Your task to perform on an android device: move an email to a new category in the gmail app Image 0: 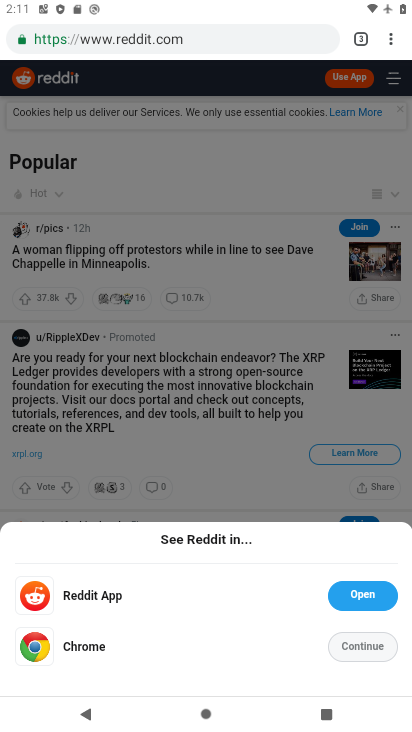
Step 0: press home button
Your task to perform on an android device: move an email to a new category in the gmail app Image 1: 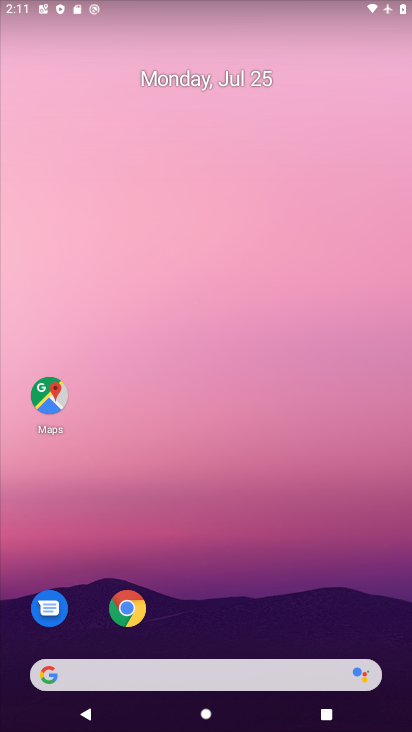
Step 1: drag from (251, 605) to (299, 36)
Your task to perform on an android device: move an email to a new category in the gmail app Image 2: 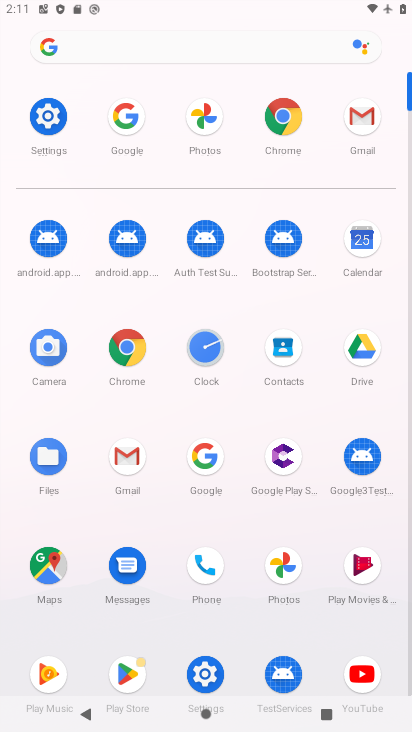
Step 2: click (125, 462)
Your task to perform on an android device: move an email to a new category in the gmail app Image 3: 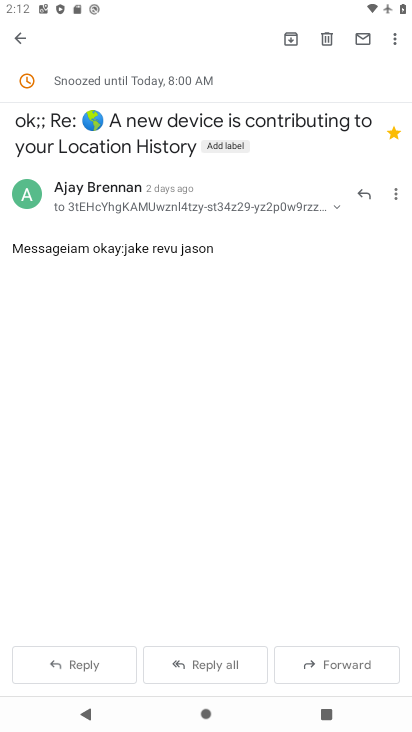
Step 3: click (17, 39)
Your task to perform on an android device: move an email to a new category in the gmail app Image 4: 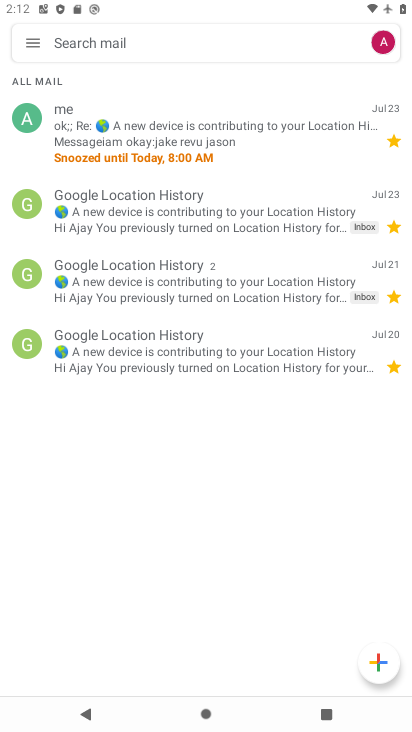
Step 4: click (126, 137)
Your task to perform on an android device: move an email to a new category in the gmail app Image 5: 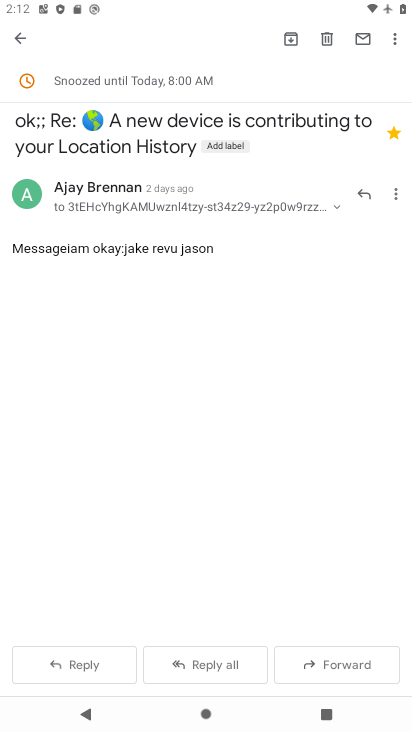
Step 5: click (396, 41)
Your task to perform on an android device: move an email to a new category in the gmail app Image 6: 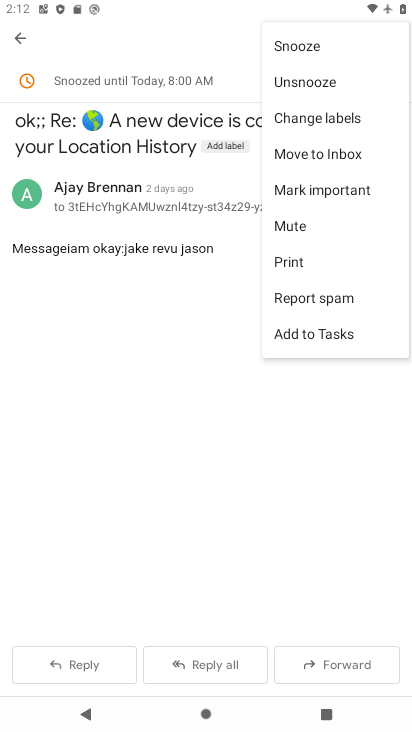
Step 6: click (326, 116)
Your task to perform on an android device: move an email to a new category in the gmail app Image 7: 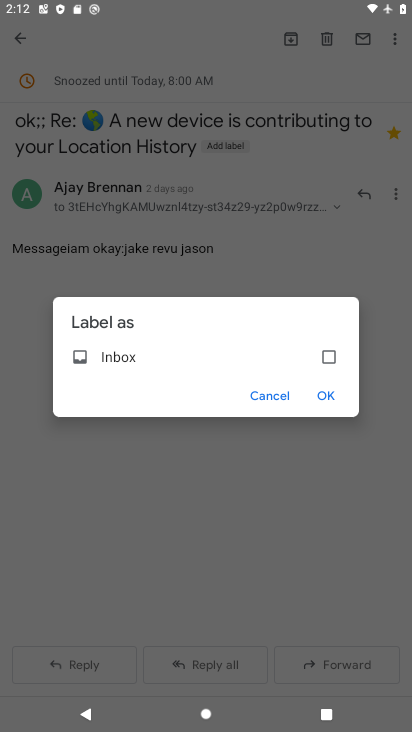
Step 7: click (328, 360)
Your task to perform on an android device: move an email to a new category in the gmail app Image 8: 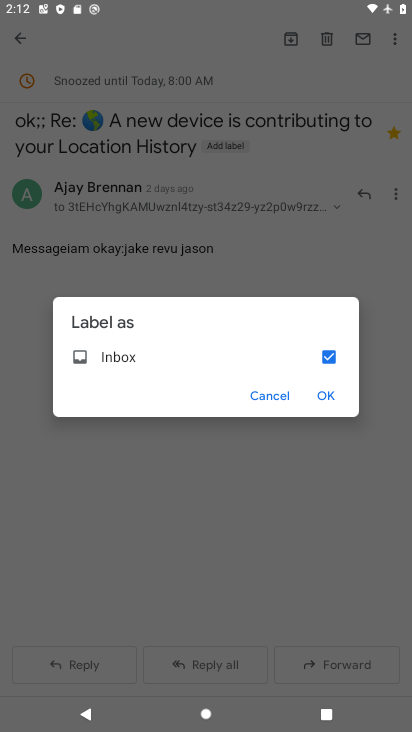
Step 8: click (327, 398)
Your task to perform on an android device: move an email to a new category in the gmail app Image 9: 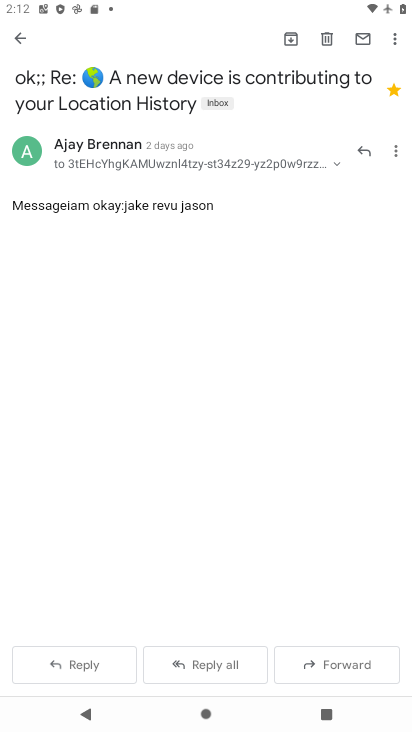
Step 9: click (390, 35)
Your task to perform on an android device: move an email to a new category in the gmail app Image 10: 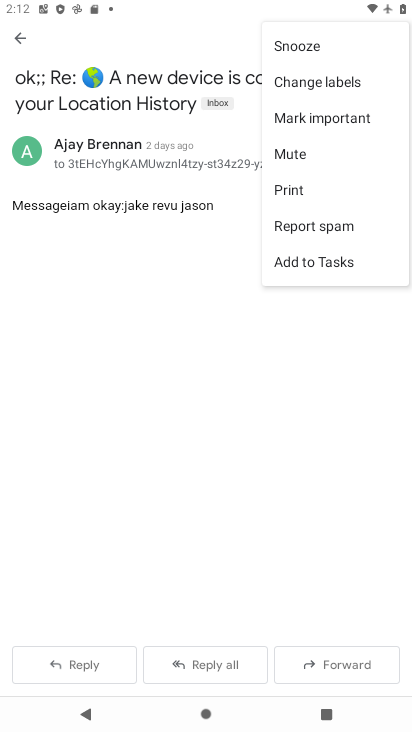
Step 10: click (352, 82)
Your task to perform on an android device: move an email to a new category in the gmail app Image 11: 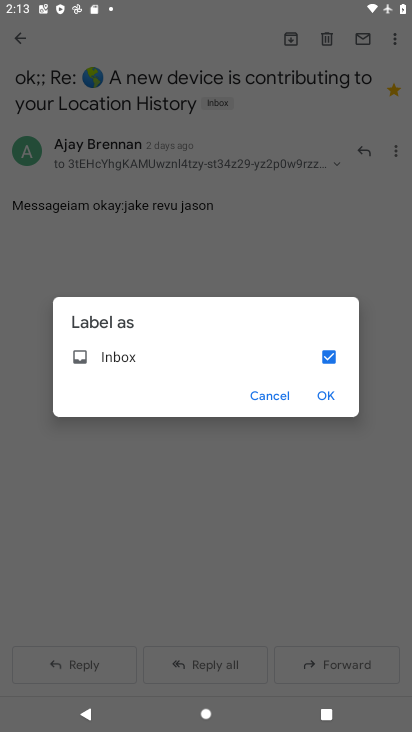
Step 11: click (324, 394)
Your task to perform on an android device: move an email to a new category in the gmail app Image 12: 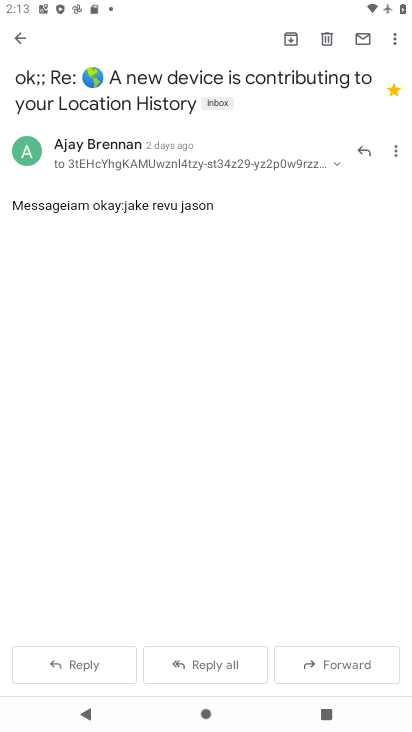
Step 12: task complete